Your task to perform on an android device: turn pop-ups on in chrome Image 0: 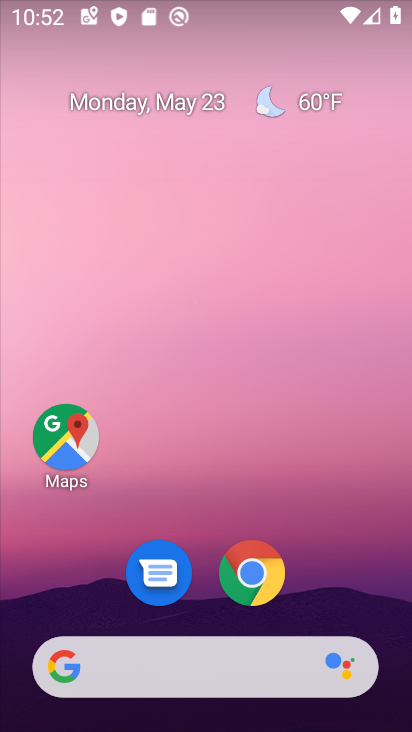
Step 0: drag from (337, 548) to (286, 28)
Your task to perform on an android device: turn pop-ups on in chrome Image 1: 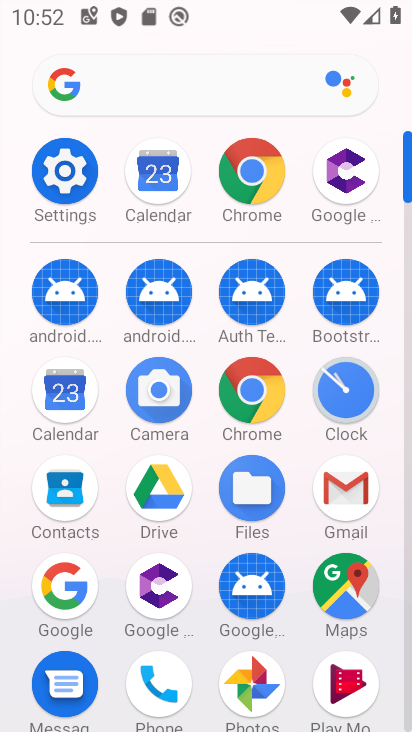
Step 1: drag from (5, 504) to (14, 229)
Your task to perform on an android device: turn pop-ups on in chrome Image 2: 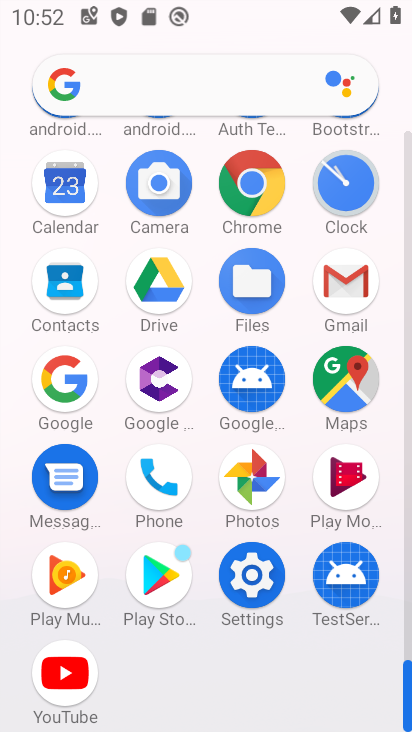
Step 2: click (247, 180)
Your task to perform on an android device: turn pop-ups on in chrome Image 3: 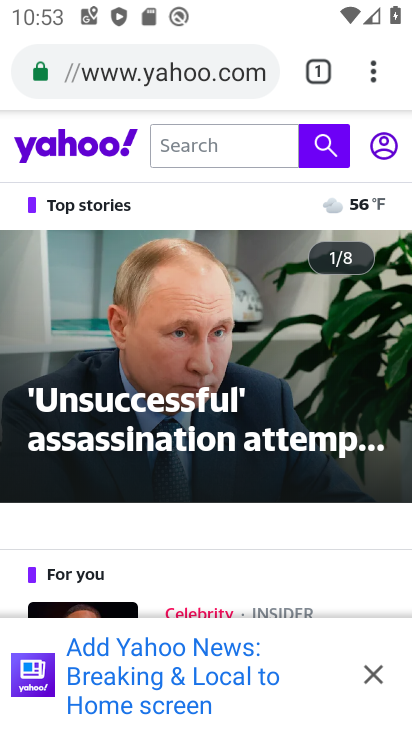
Step 3: drag from (371, 77) to (155, 567)
Your task to perform on an android device: turn pop-ups on in chrome Image 4: 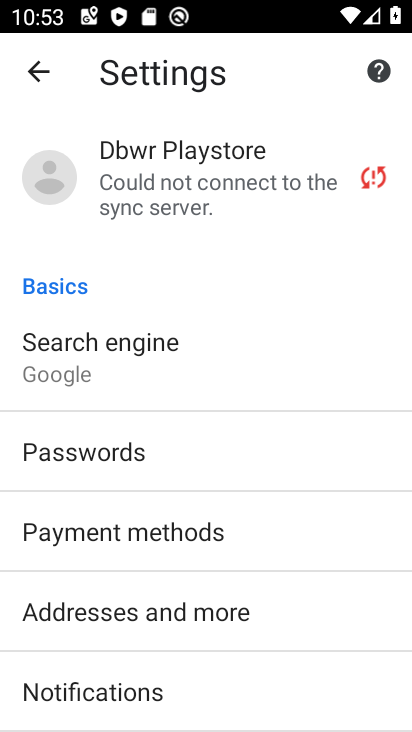
Step 4: drag from (221, 596) to (264, 195)
Your task to perform on an android device: turn pop-ups on in chrome Image 5: 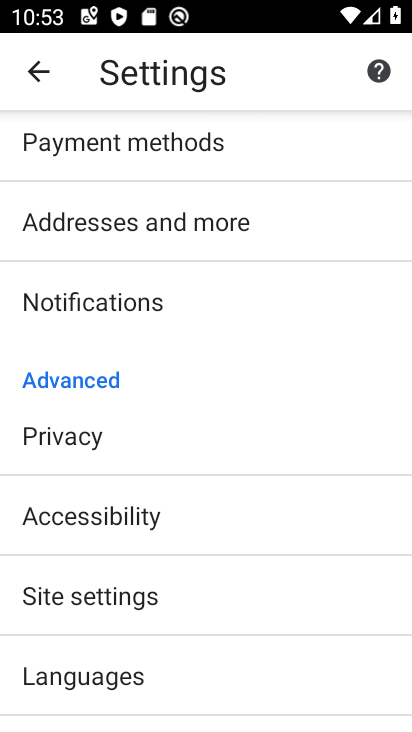
Step 5: drag from (217, 534) to (217, 228)
Your task to perform on an android device: turn pop-ups on in chrome Image 6: 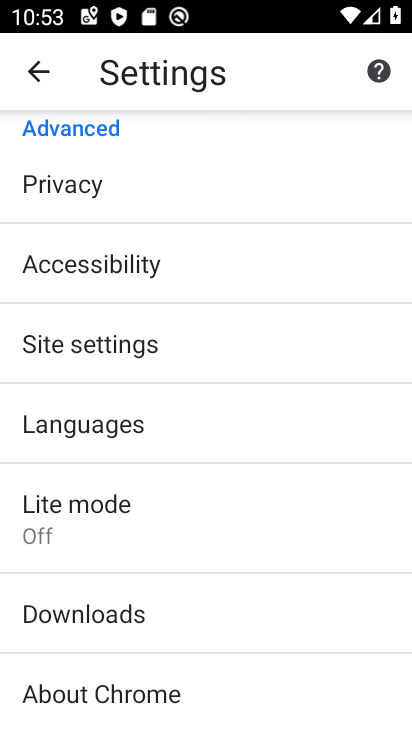
Step 6: click (126, 334)
Your task to perform on an android device: turn pop-ups on in chrome Image 7: 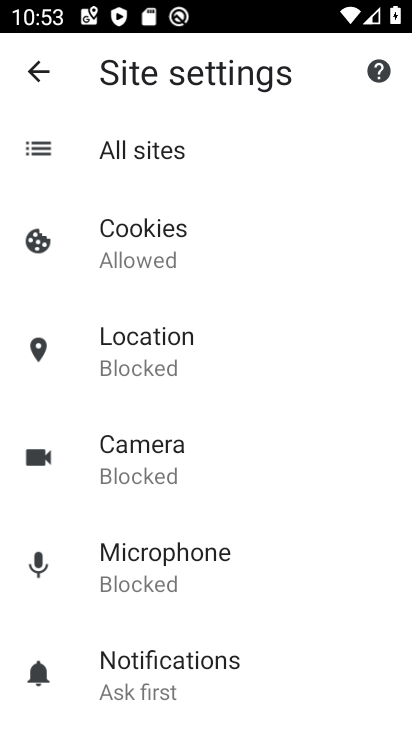
Step 7: drag from (242, 609) to (258, 140)
Your task to perform on an android device: turn pop-ups on in chrome Image 8: 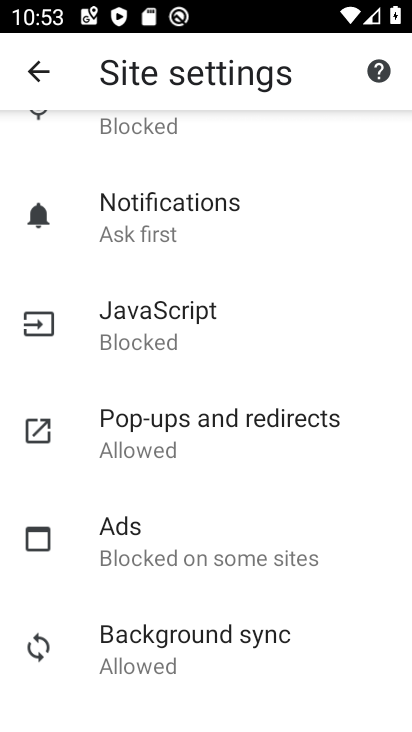
Step 8: click (186, 439)
Your task to perform on an android device: turn pop-ups on in chrome Image 9: 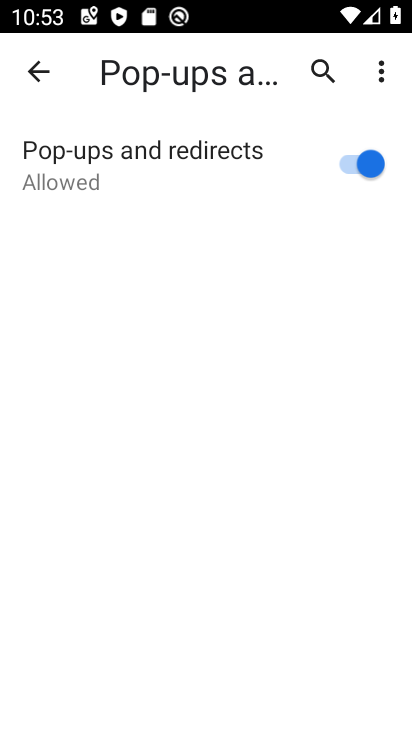
Step 9: task complete